Your task to perform on an android device: What is the news today? Image 0: 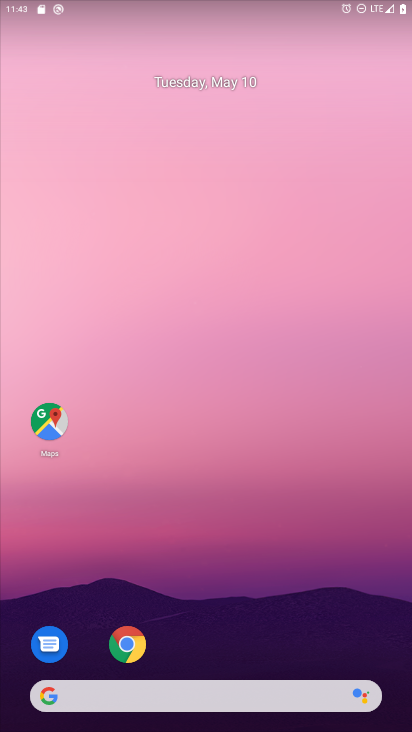
Step 0: drag from (252, 601) to (135, 8)
Your task to perform on an android device: What is the news today? Image 1: 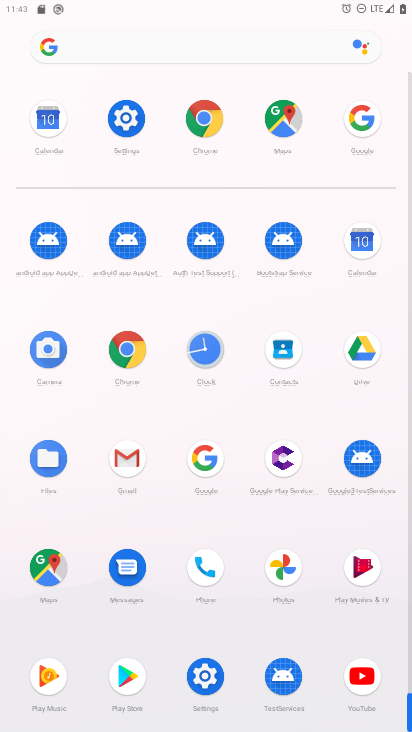
Step 1: click (207, 468)
Your task to perform on an android device: What is the news today? Image 2: 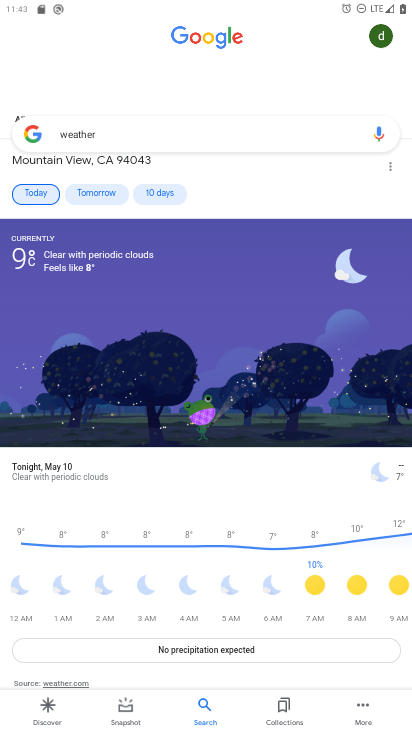
Step 2: click (255, 134)
Your task to perform on an android device: What is the news today? Image 3: 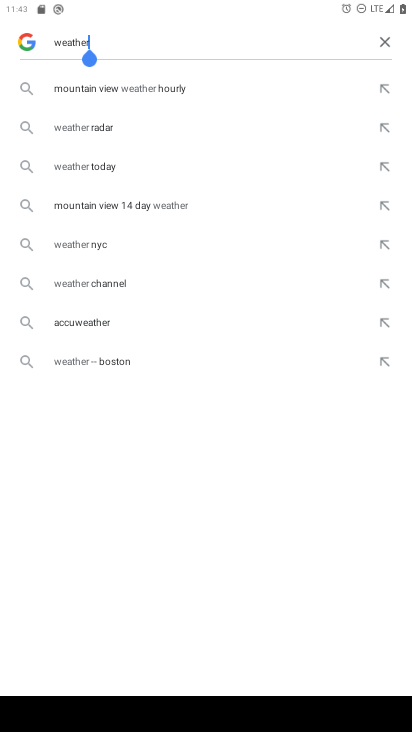
Step 3: click (390, 41)
Your task to perform on an android device: What is the news today? Image 4: 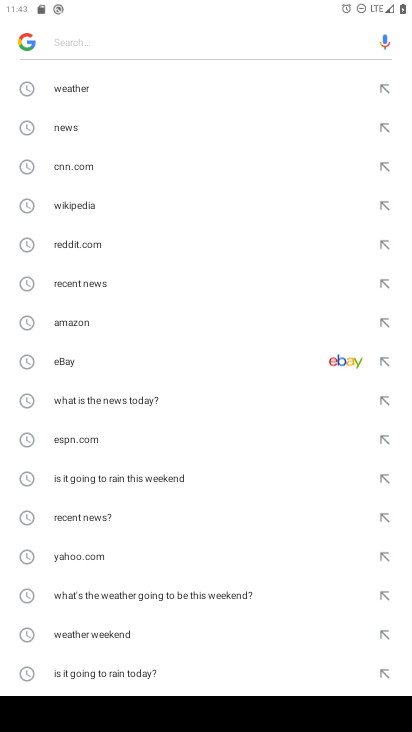
Step 4: click (155, 132)
Your task to perform on an android device: What is the news today? Image 5: 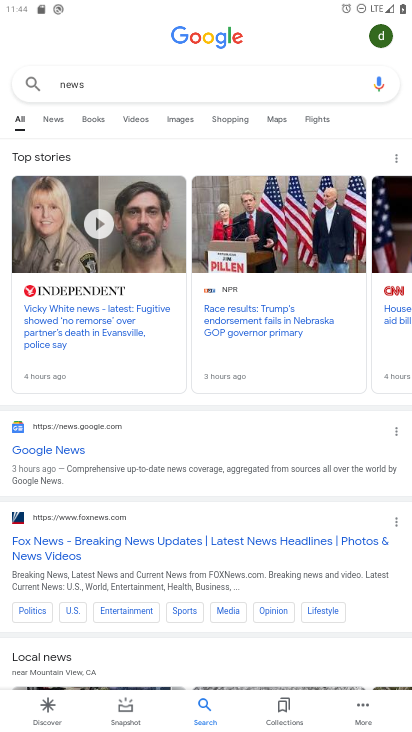
Step 5: click (47, 117)
Your task to perform on an android device: What is the news today? Image 6: 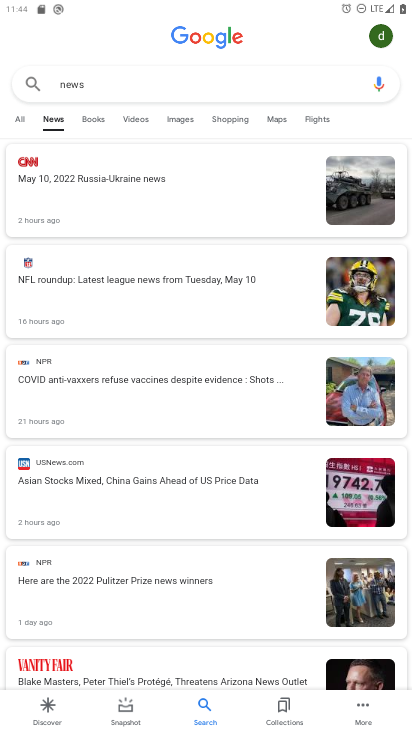
Step 6: task complete